Your task to perform on an android device: Go to ESPN.com Image 0: 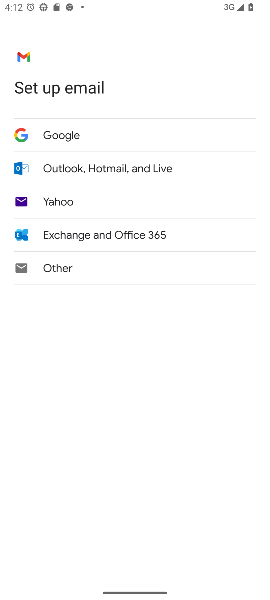
Step 0: press home button
Your task to perform on an android device: Go to ESPN.com Image 1: 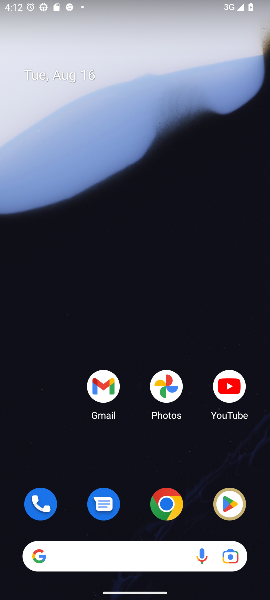
Step 1: click (171, 505)
Your task to perform on an android device: Go to ESPN.com Image 2: 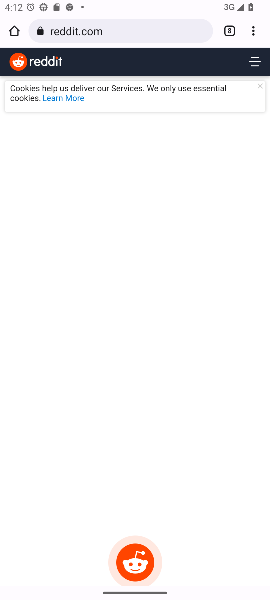
Step 2: click (253, 31)
Your task to perform on an android device: Go to ESPN.com Image 3: 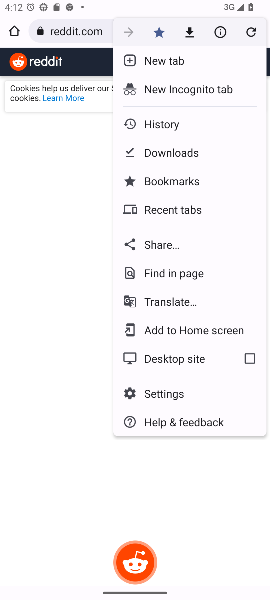
Step 3: click (163, 62)
Your task to perform on an android device: Go to ESPN.com Image 4: 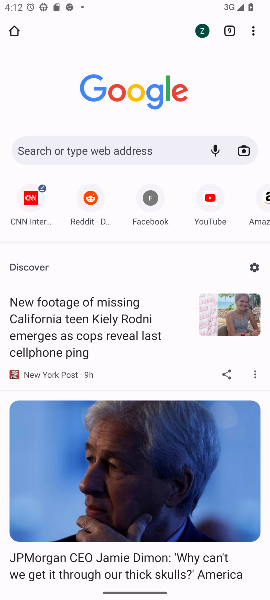
Step 4: click (121, 148)
Your task to perform on an android device: Go to ESPN.com Image 5: 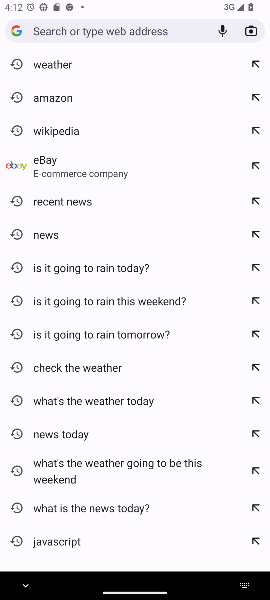
Step 5: type "espn.com"
Your task to perform on an android device: Go to ESPN.com Image 6: 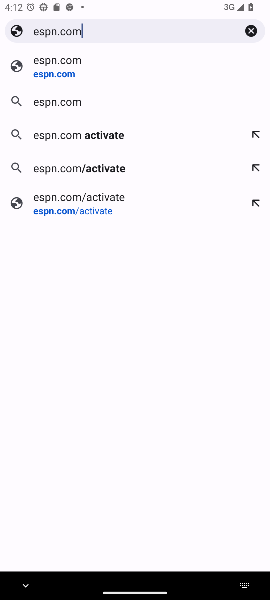
Step 6: click (41, 61)
Your task to perform on an android device: Go to ESPN.com Image 7: 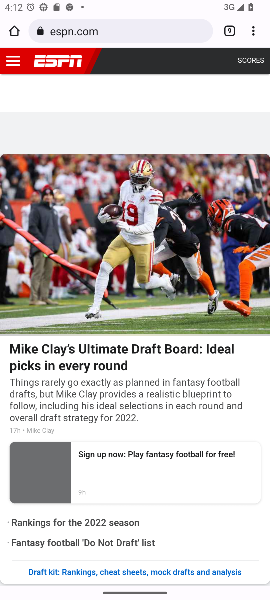
Step 7: task complete